Your task to perform on an android device: delete a single message in the gmail app Image 0: 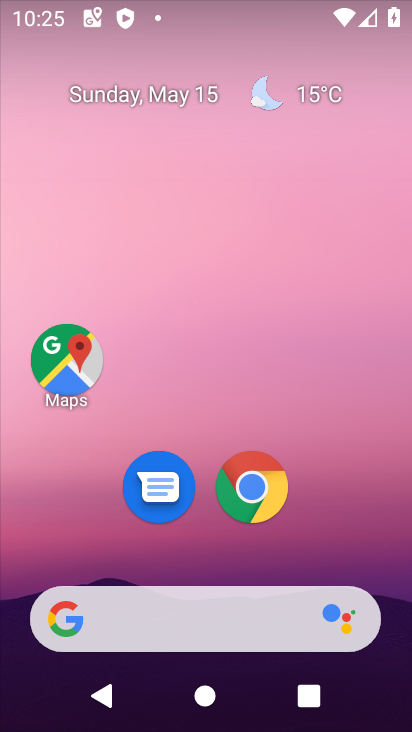
Step 0: drag from (398, 622) to (334, 130)
Your task to perform on an android device: delete a single message in the gmail app Image 1: 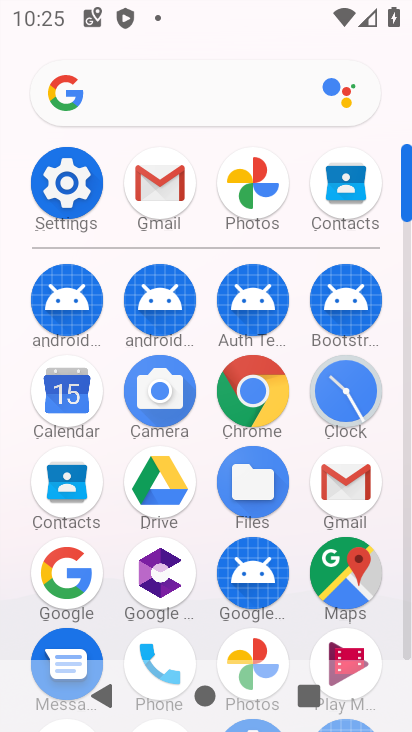
Step 1: click (406, 646)
Your task to perform on an android device: delete a single message in the gmail app Image 2: 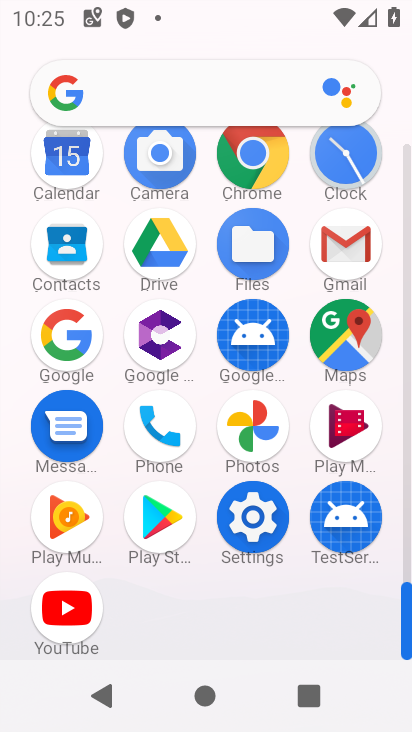
Step 2: click (347, 243)
Your task to perform on an android device: delete a single message in the gmail app Image 3: 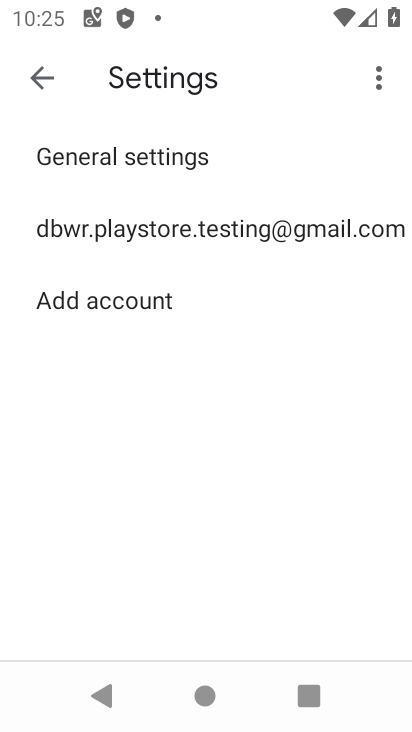
Step 3: press back button
Your task to perform on an android device: delete a single message in the gmail app Image 4: 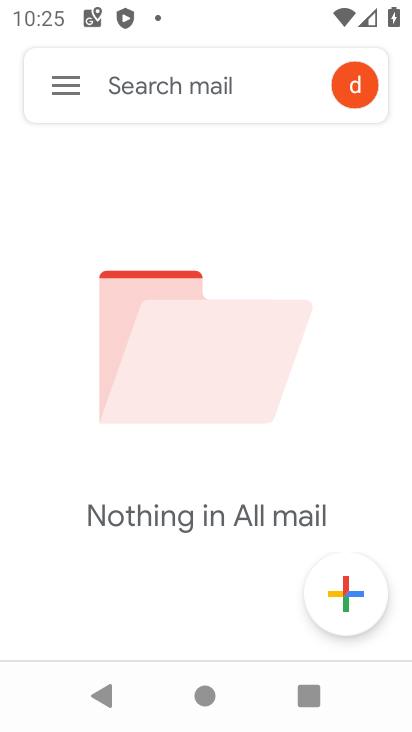
Step 4: click (64, 84)
Your task to perform on an android device: delete a single message in the gmail app Image 5: 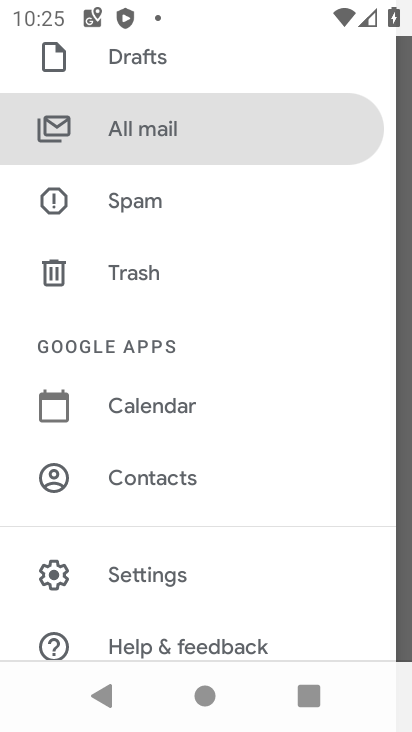
Step 5: click (154, 133)
Your task to perform on an android device: delete a single message in the gmail app Image 6: 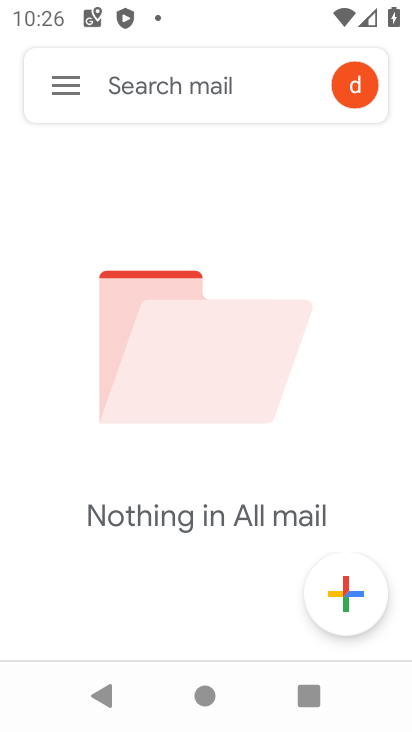
Step 6: task complete